Your task to perform on an android device: Search for pizza restaurants on Maps Image 0: 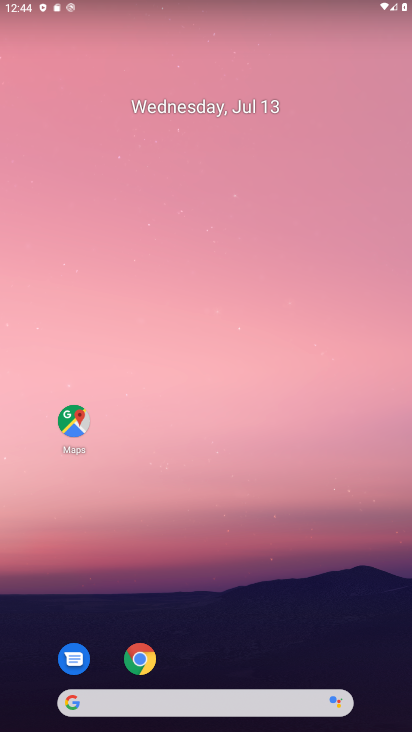
Step 0: drag from (199, 629) to (299, 7)
Your task to perform on an android device: Search for pizza restaurants on Maps Image 1: 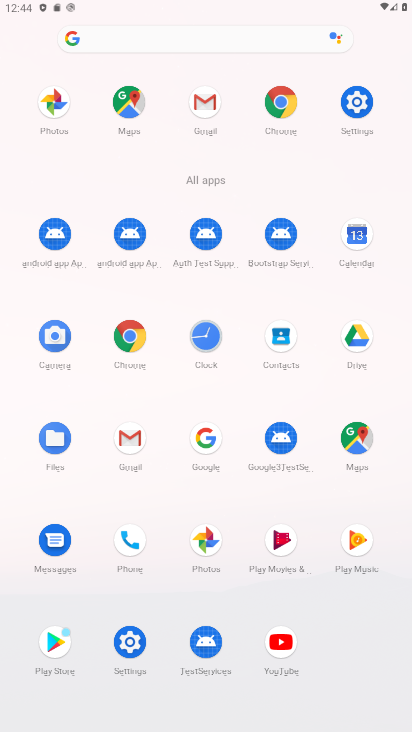
Step 1: click (357, 432)
Your task to perform on an android device: Search for pizza restaurants on Maps Image 2: 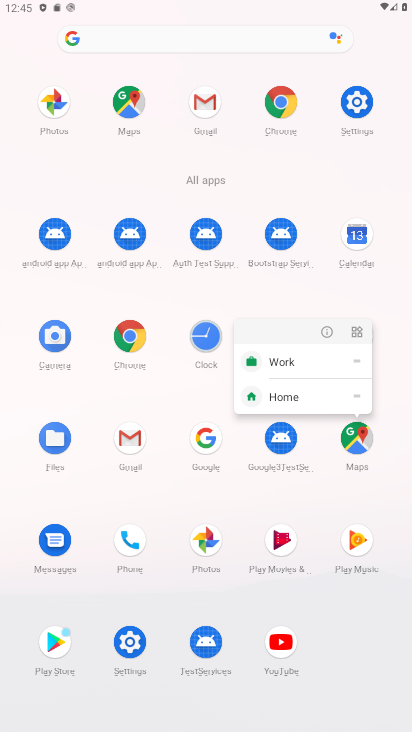
Step 2: click (325, 329)
Your task to perform on an android device: Search for pizza restaurants on Maps Image 3: 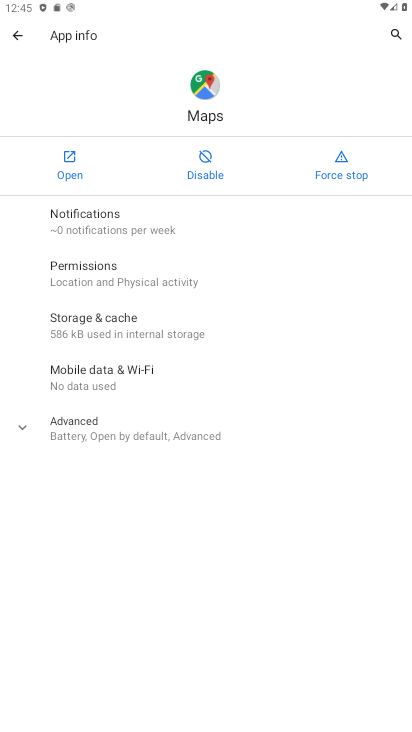
Step 3: click (60, 161)
Your task to perform on an android device: Search for pizza restaurants on Maps Image 4: 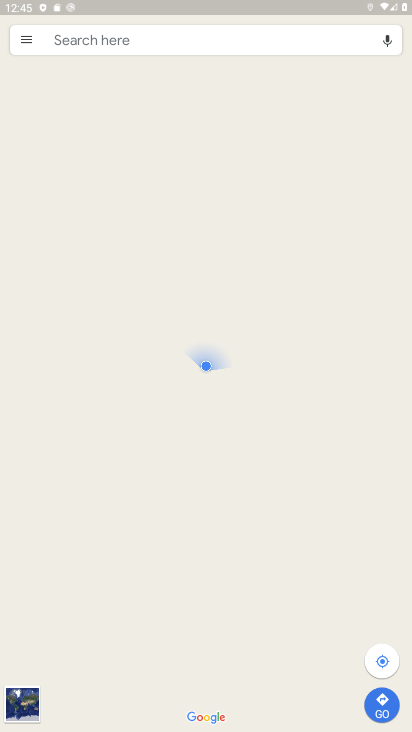
Step 4: click (114, 43)
Your task to perform on an android device: Search for pizza restaurants on Maps Image 5: 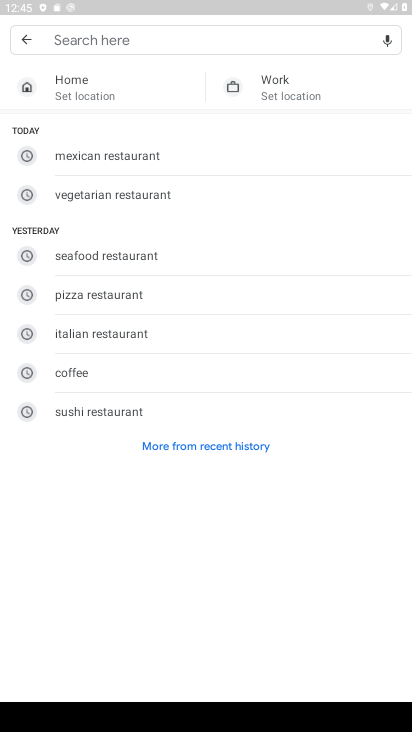
Step 5: click (95, 293)
Your task to perform on an android device: Search for pizza restaurants on Maps Image 6: 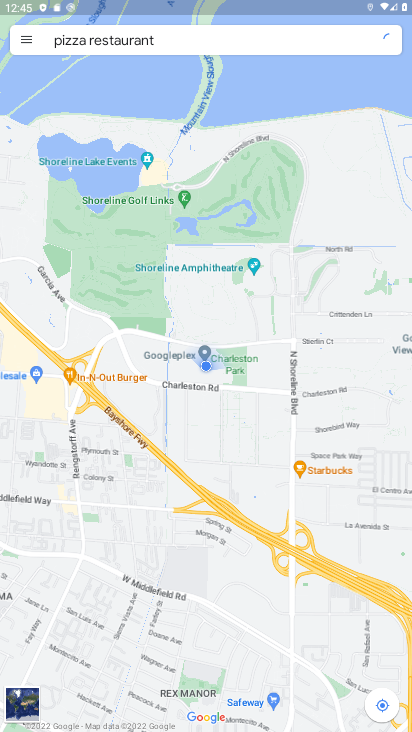
Step 6: task complete